Your task to perform on an android device: Open the calendar app, open the side menu, and click the "Day" option Image 0: 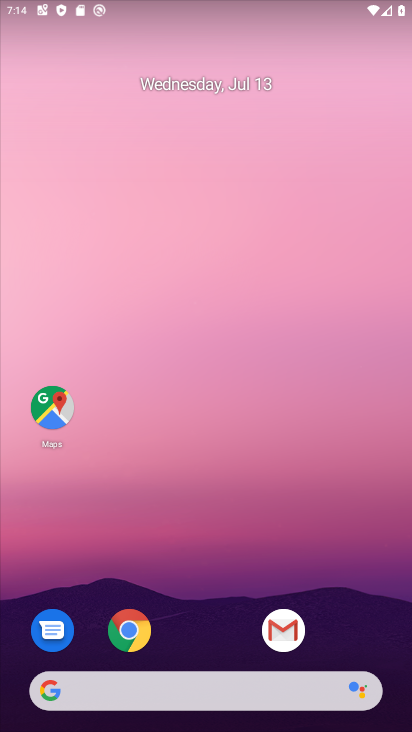
Step 0: drag from (300, 694) to (317, 222)
Your task to perform on an android device: Open the calendar app, open the side menu, and click the "Day" option Image 1: 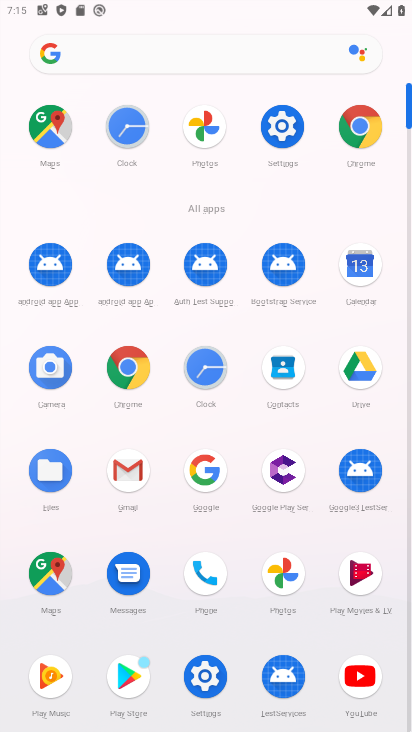
Step 1: click (357, 280)
Your task to perform on an android device: Open the calendar app, open the side menu, and click the "Day" option Image 2: 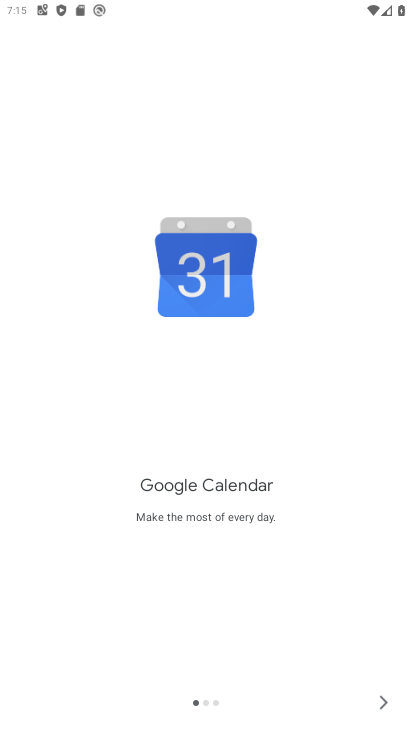
Step 2: click (379, 704)
Your task to perform on an android device: Open the calendar app, open the side menu, and click the "Day" option Image 3: 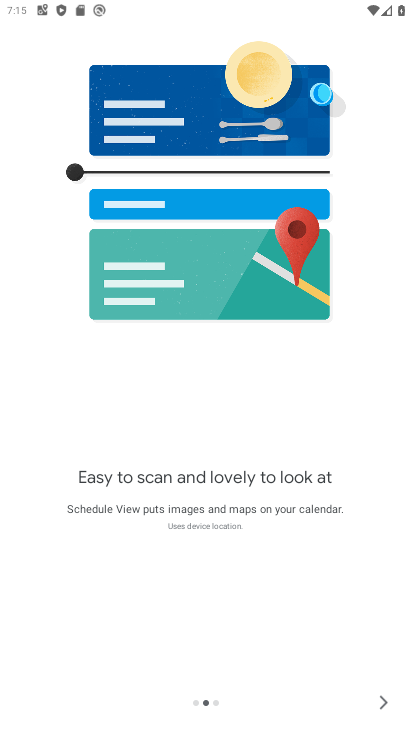
Step 3: click (374, 705)
Your task to perform on an android device: Open the calendar app, open the side menu, and click the "Day" option Image 4: 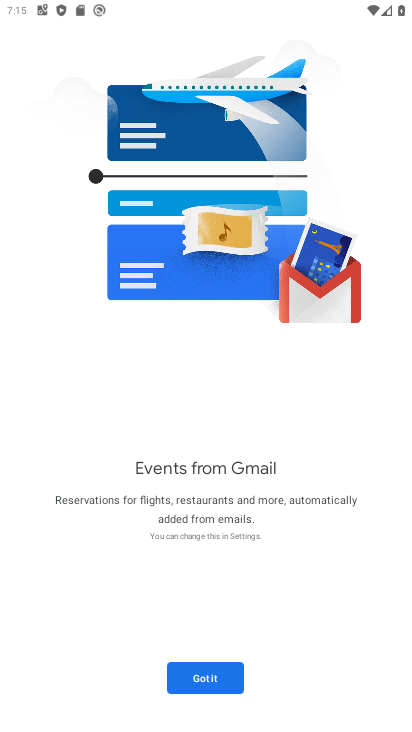
Step 4: click (223, 667)
Your task to perform on an android device: Open the calendar app, open the side menu, and click the "Day" option Image 5: 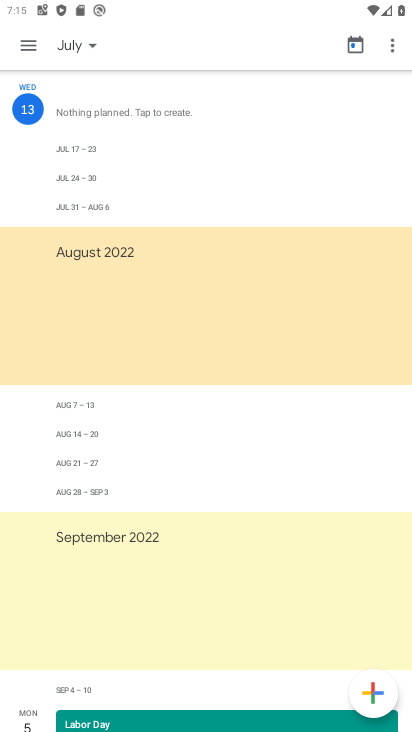
Step 5: click (34, 44)
Your task to perform on an android device: Open the calendar app, open the side menu, and click the "Day" option Image 6: 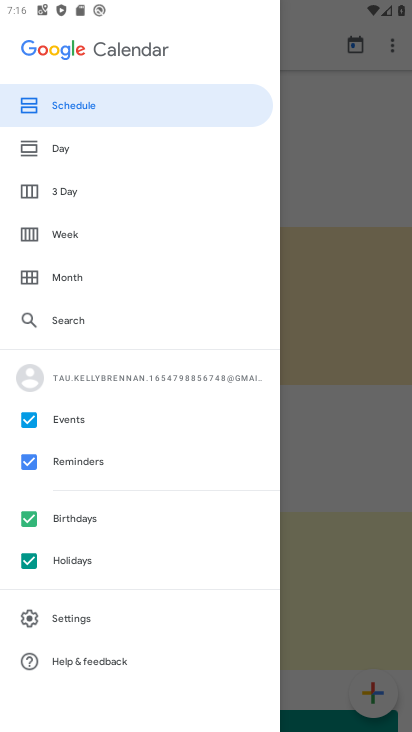
Step 6: click (73, 157)
Your task to perform on an android device: Open the calendar app, open the side menu, and click the "Day" option Image 7: 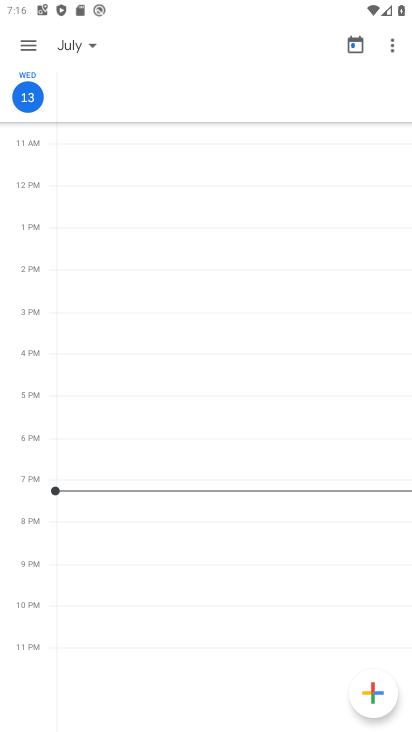
Step 7: task complete